Your task to perform on an android device: Search for lenovo thinkpad on target, select the first entry, and add it to the cart. Image 0: 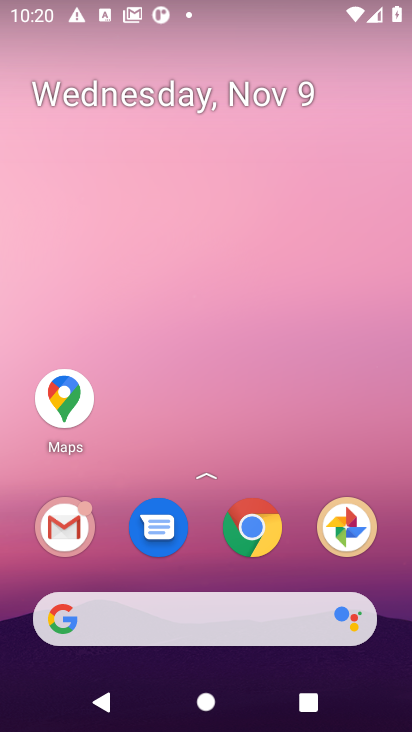
Step 0: click (246, 533)
Your task to perform on an android device: Search for lenovo thinkpad on target, select the first entry, and add it to the cart. Image 1: 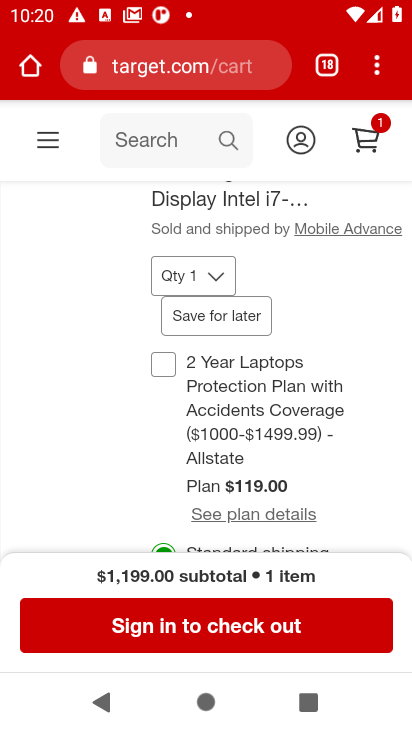
Step 1: click (222, 140)
Your task to perform on an android device: Search for lenovo thinkpad on target, select the first entry, and add it to the cart. Image 2: 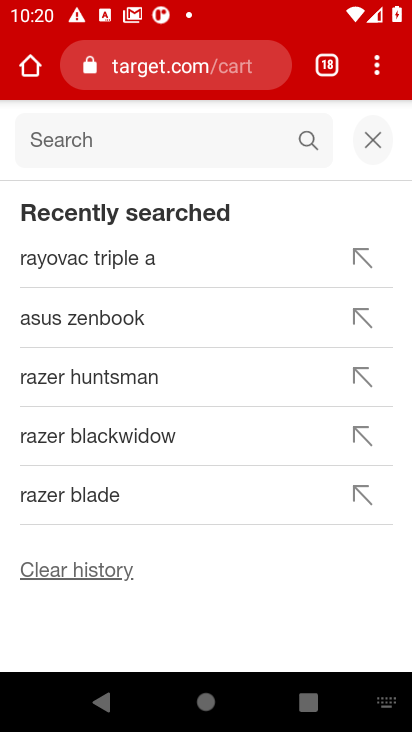
Step 2: type "lenovo thinkpad"
Your task to perform on an android device: Search for lenovo thinkpad on target, select the first entry, and add it to the cart. Image 3: 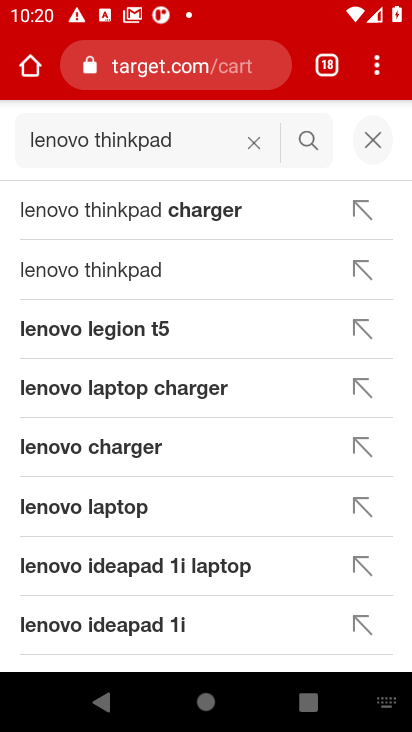
Step 3: click (141, 269)
Your task to perform on an android device: Search for lenovo thinkpad on target, select the first entry, and add it to the cart. Image 4: 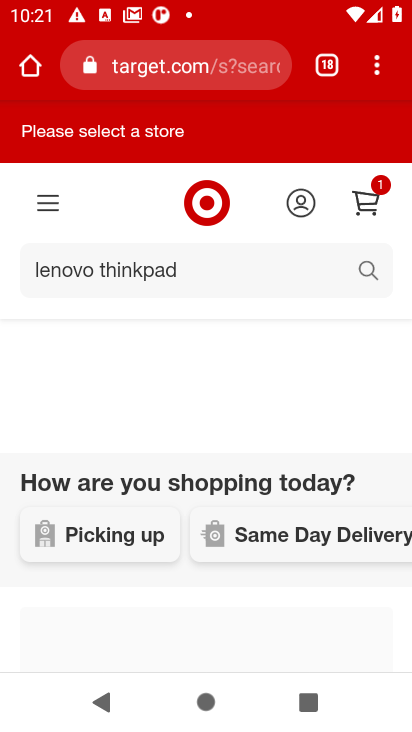
Step 4: drag from (185, 550) to (192, 218)
Your task to perform on an android device: Search for lenovo thinkpad on target, select the first entry, and add it to the cart. Image 5: 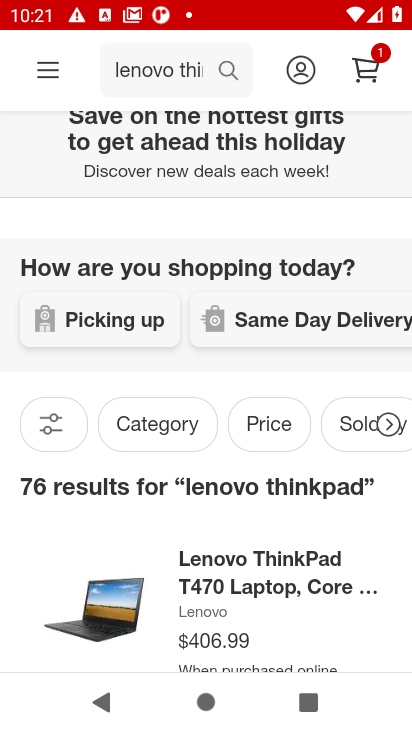
Step 5: drag from (178, 465) to (168, 203)
Your task to perform on an android device: Search for lenovo thinkpad on target, select the first entry, and add it to the cart. Image 6: 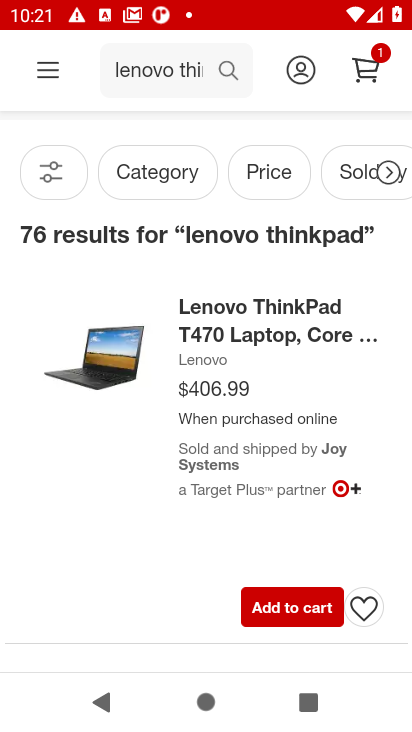
Step 6: click (278, 609)
Your task to perform on an android device: Search for lenovo thinkpad on target, select the first entry, and add it to the cart. Image 7: 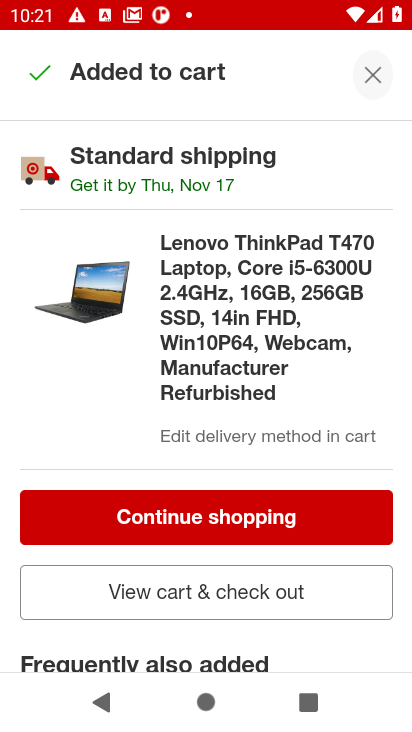
Step 7: task complete